Your task to perform on an android device: change text size in settings app Image 0: 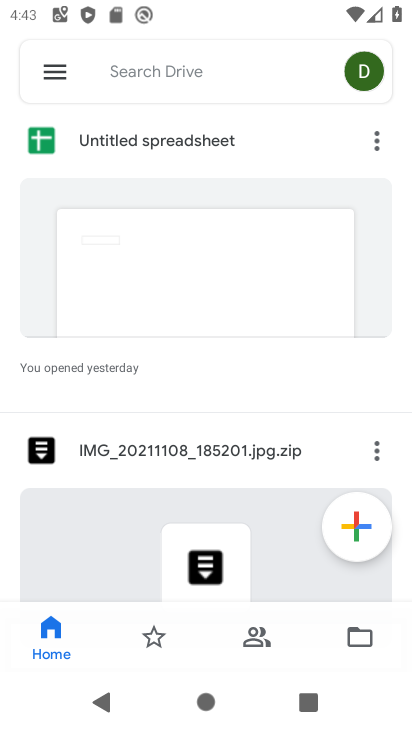
Step 0: press home button
Your task to perform on an android device: change text size in settings app Image 1: 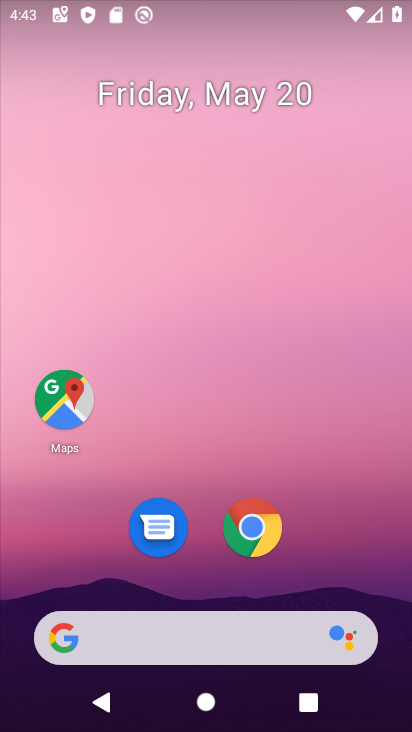
Step 1: drag from (267, 610) to (294, 285)
Your task to perform on an android device: change text size in settings app Image 2: 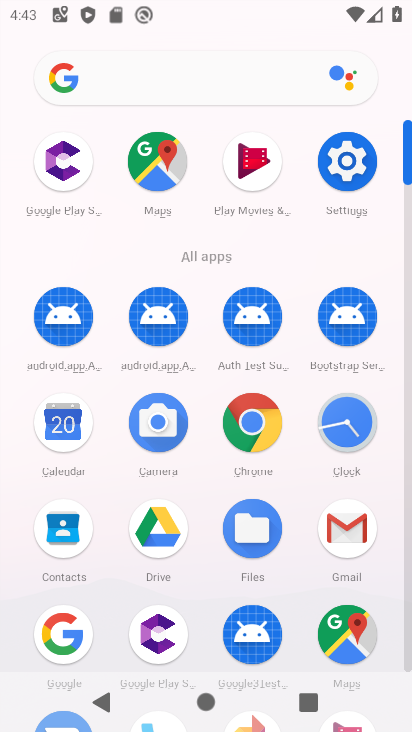
Step 2: drag from (138, 638) to (170, 281)
Your task to perform on an android device: change text size in settings app Image 3: 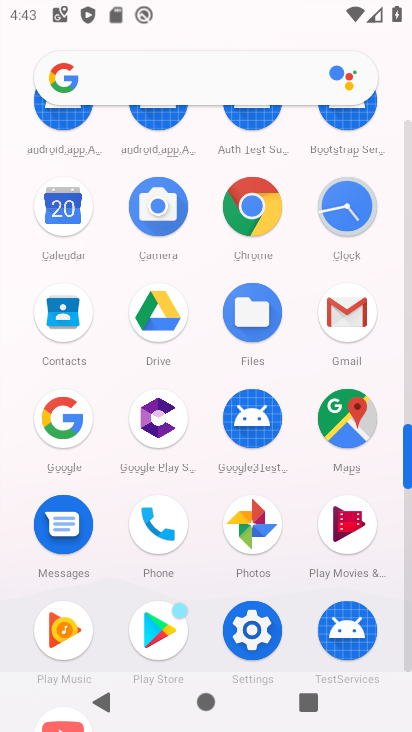
Step 3: click (257, 629)
Your task to perform on an android device: change text size in settings app Image 4: 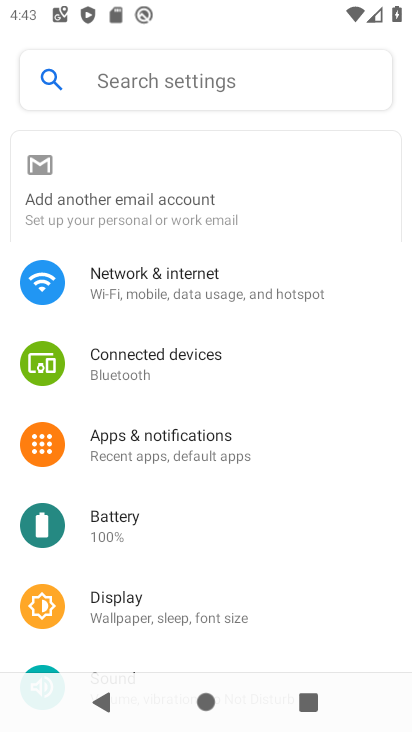
Step 4: drag from (179, 598) to (246, 164)
Your task to perform on an android device: change text size in settings app Image 5: 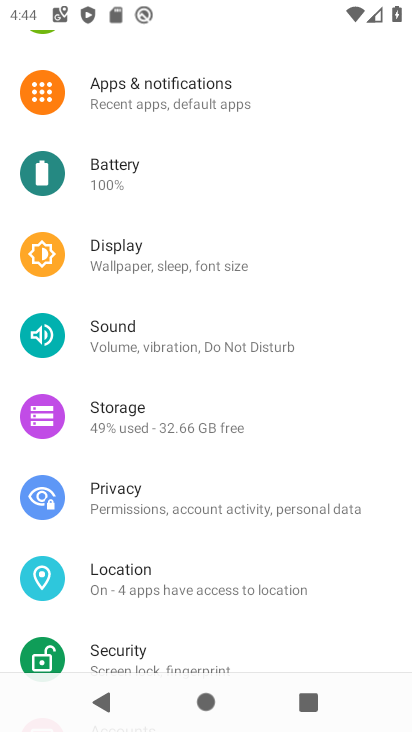
Step 5: drag from (219, 623) to (263, 249)
Your task to perform on an android device: change text size in settings app Image 6: 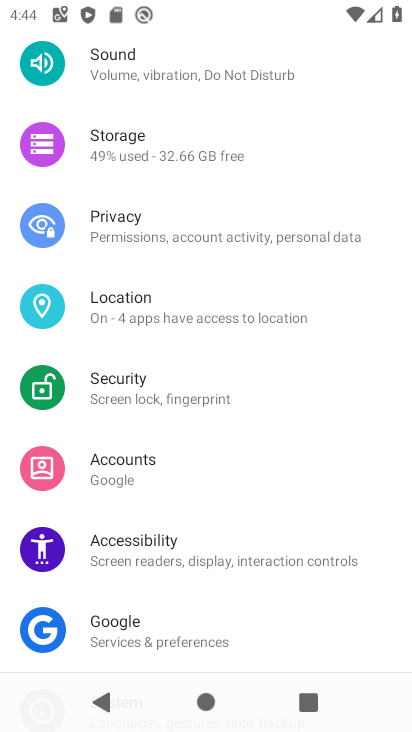
Step 6: drag from (227, 629) to (280, 318)
Your task to perform on an android device: change text size in settings app Image 7: 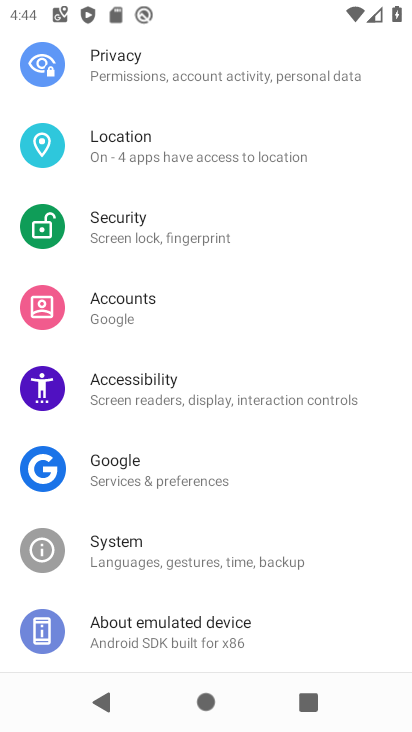
Step 7: click (140, 389)
Your task to perform on an android device: change text size in settings app Image 8: 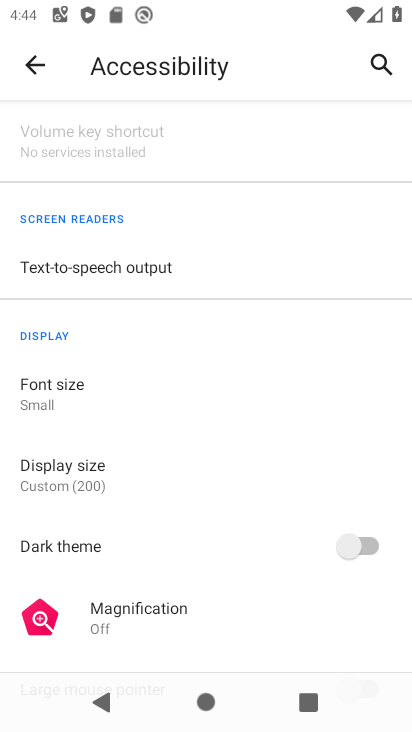
Step 8: click (100, 263)
Your task to perform on an android device: change text size in settings app Image 9: 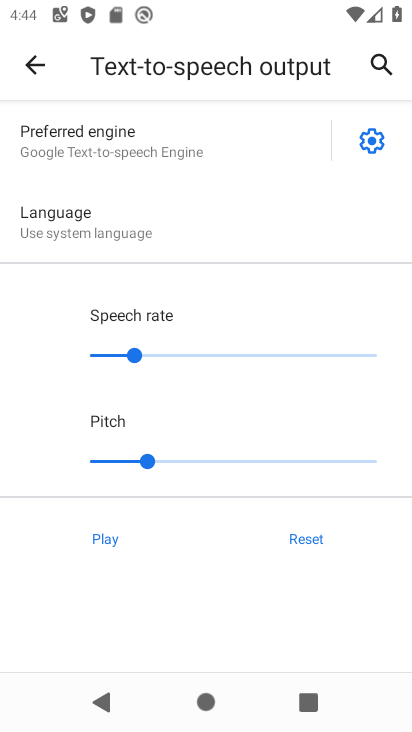
Step 9: click (34, 61)
Your task to perform on an android device: change text size in settings app Image 10: 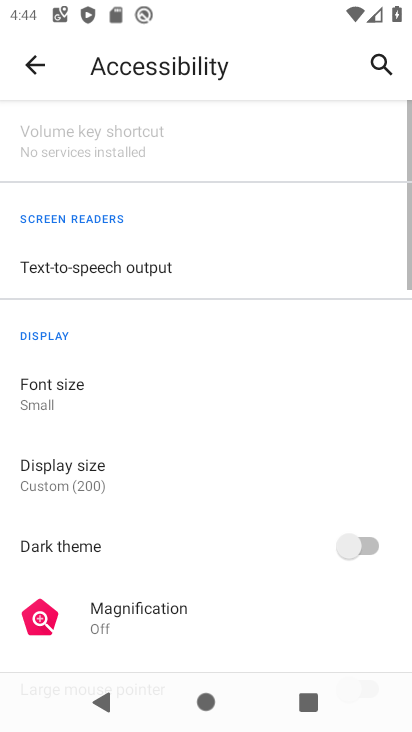
Step 10: click (34, 406)
Your task to perform on an android device: change text size in settings app Image 11: 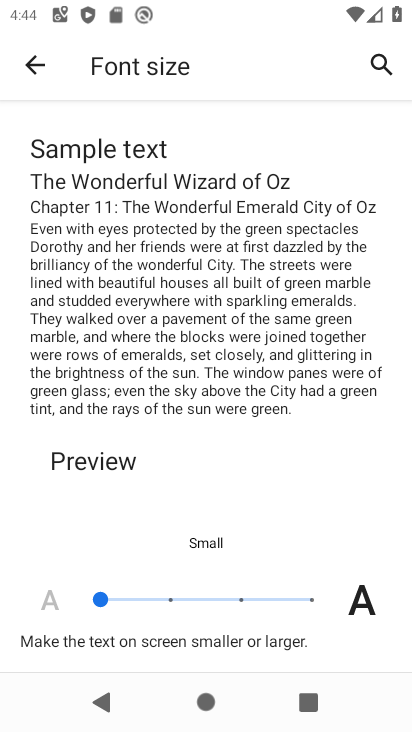
Step 11: click (180, 595)
Your task to perform on an android device: change text size in settings app Image 12: 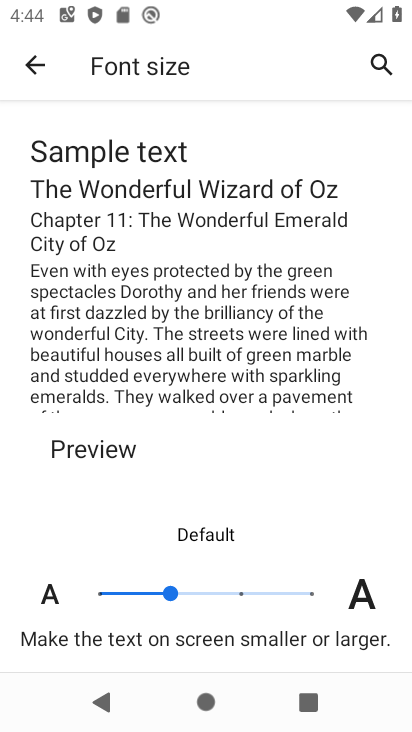
Step 12: task complete